Your task to perform on an android device: Go to sound settings Image 0: 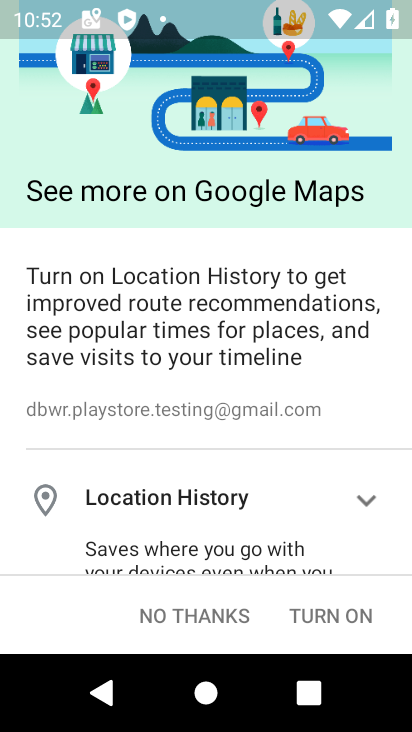
Step 0: press home button
Your task to perform on an android device: Go to sound settings Image 1: 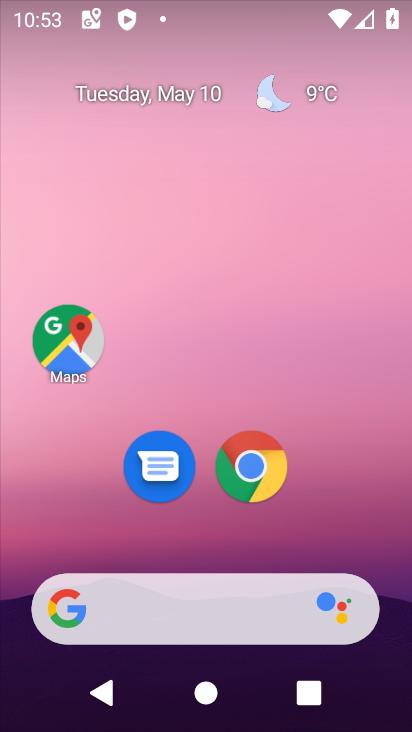
Step 1: drag from (267, 554) to (289, 1)
Your task to perform on an android device: Go to sound settings Image 2: 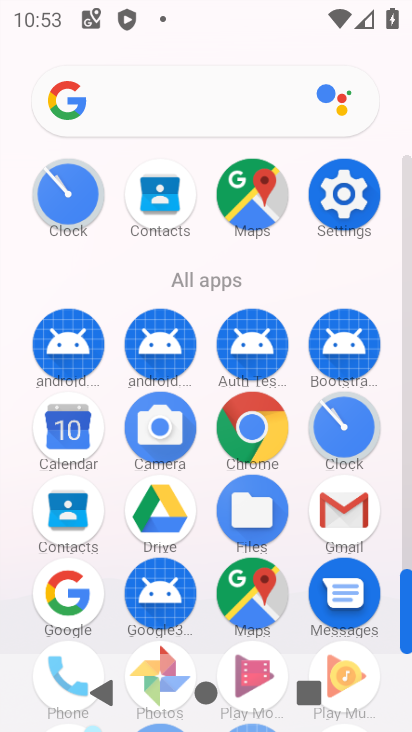
Step 2: click (350, 167)
Your task to perform on an android device: Go to sound settings Image 3: 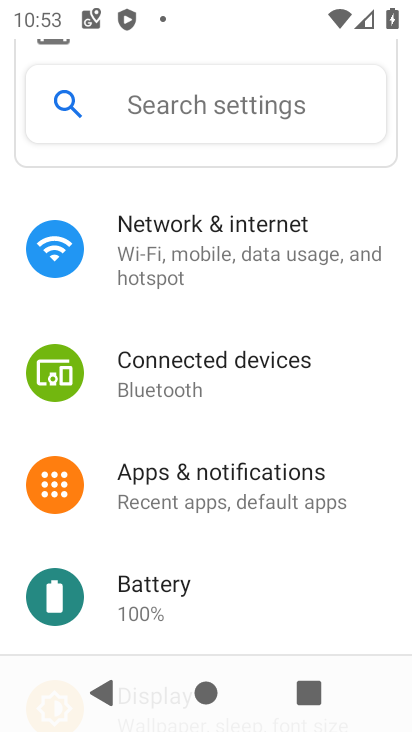
Step 3: drag from (173, 522) to (178, 391)
Your task to perform on an android device: Go to sound settings Image 4: 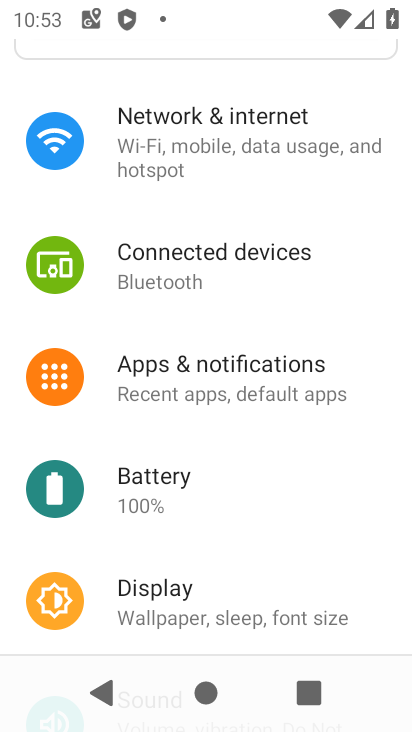
Step 4: drag from (194, 506) to (198, 421)
Your task to perform on an android device: Go to sound settings Image 5: 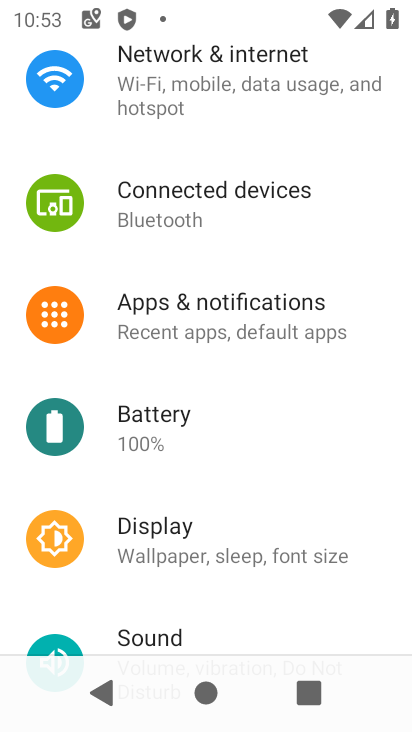
Step 5: drag from (149, 615) to (151, 524)
Your task to perform on an android device: Go to sound settings Image 6: 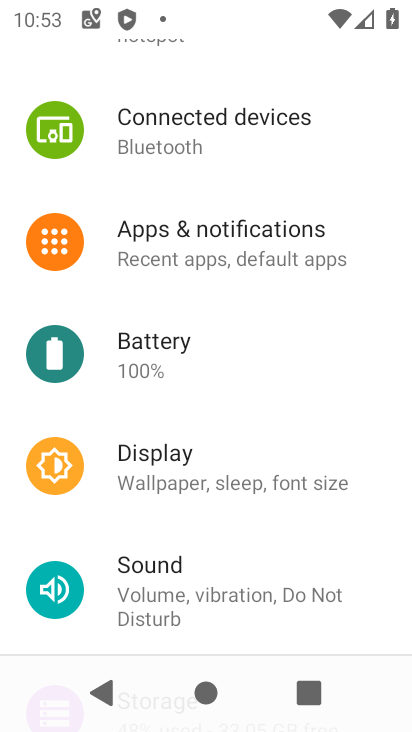
Step 6: click (202, 593)
Your task to perform on an android device: Go to sound settings Image 7: 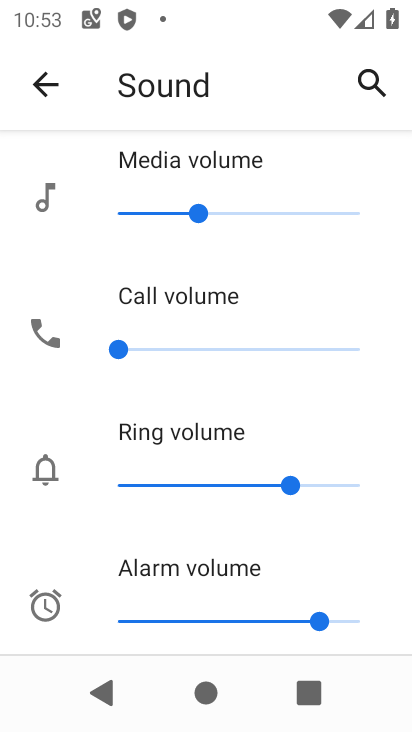
Step 7: task complete